Your task to perform on an android device: Search for "usb-b" on ebay.com, select the first entry, add it to the cart, then select checkout. Image 0: 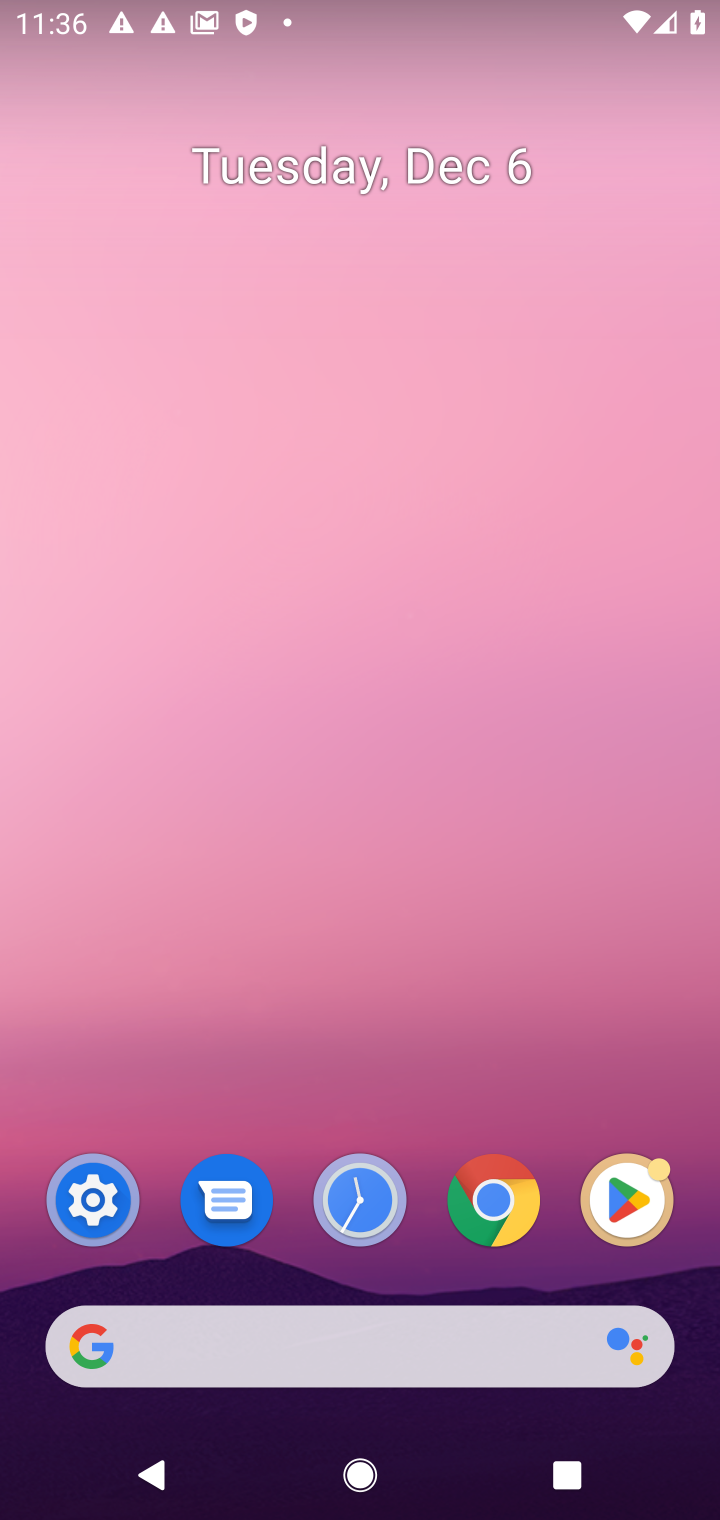
Step 0: click (417, 1361)
Your task to perform on an android device: Search for "usb-b" on ebay.com, select the first entry, add it to the cart, then select checkout. Image 1: 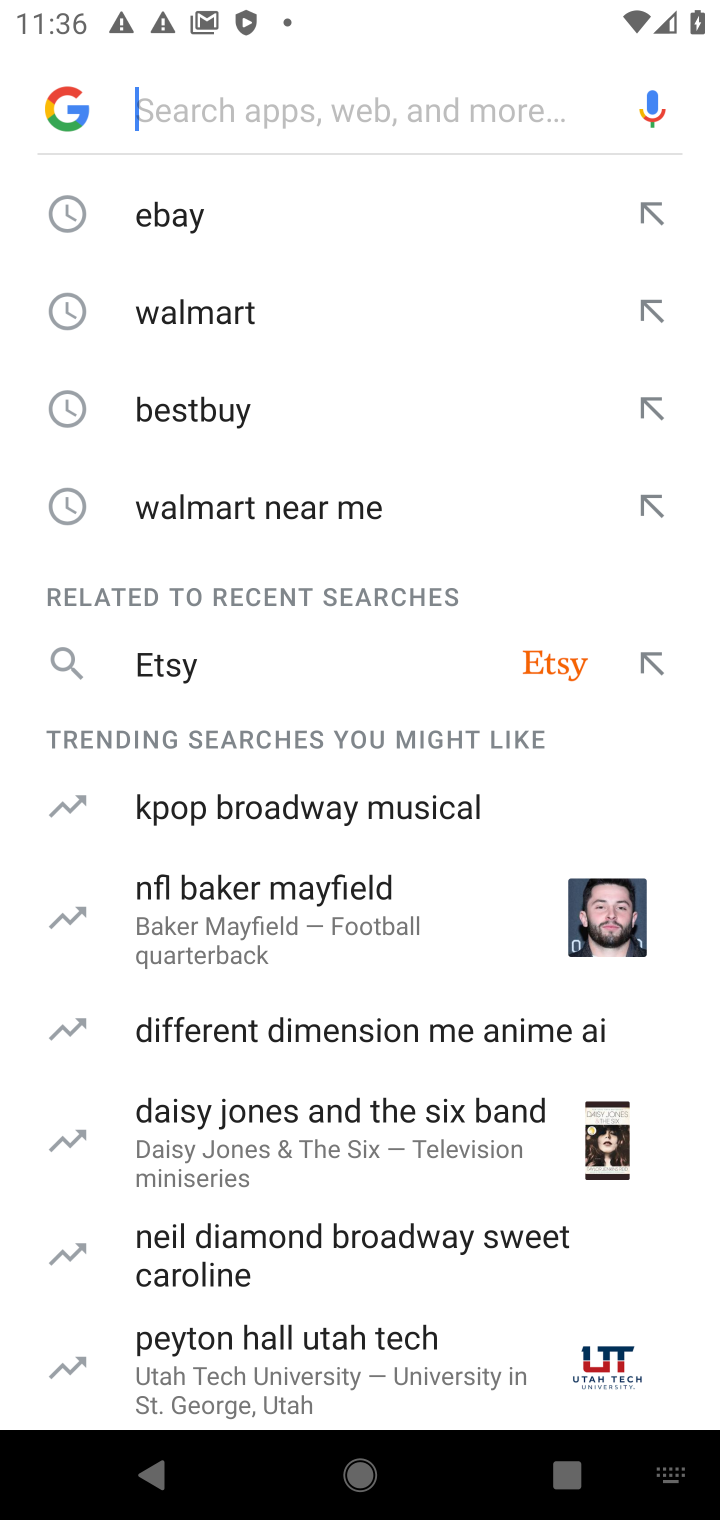
Step 1: type "ebay.com"
Your task to perform on an android device: Search for "usb-b" on ebay.com, select the first entry, add it to the cart, then select checkout. Image 2: 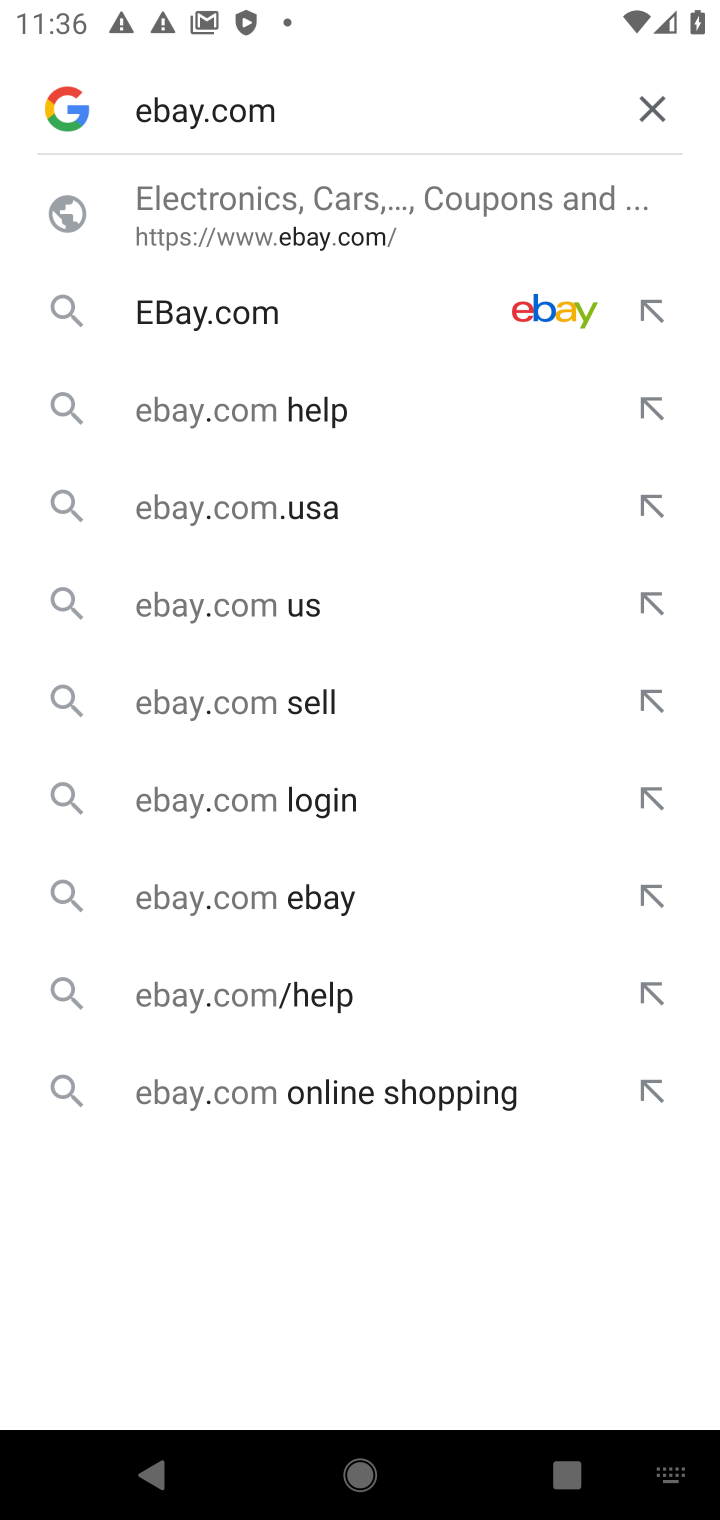
Step 2: click (256, 200)
Your task to perform on an android device: Search for "usb-b" on ebay.com, select the first entry, add it to the cart, then select checkout. Image 3: 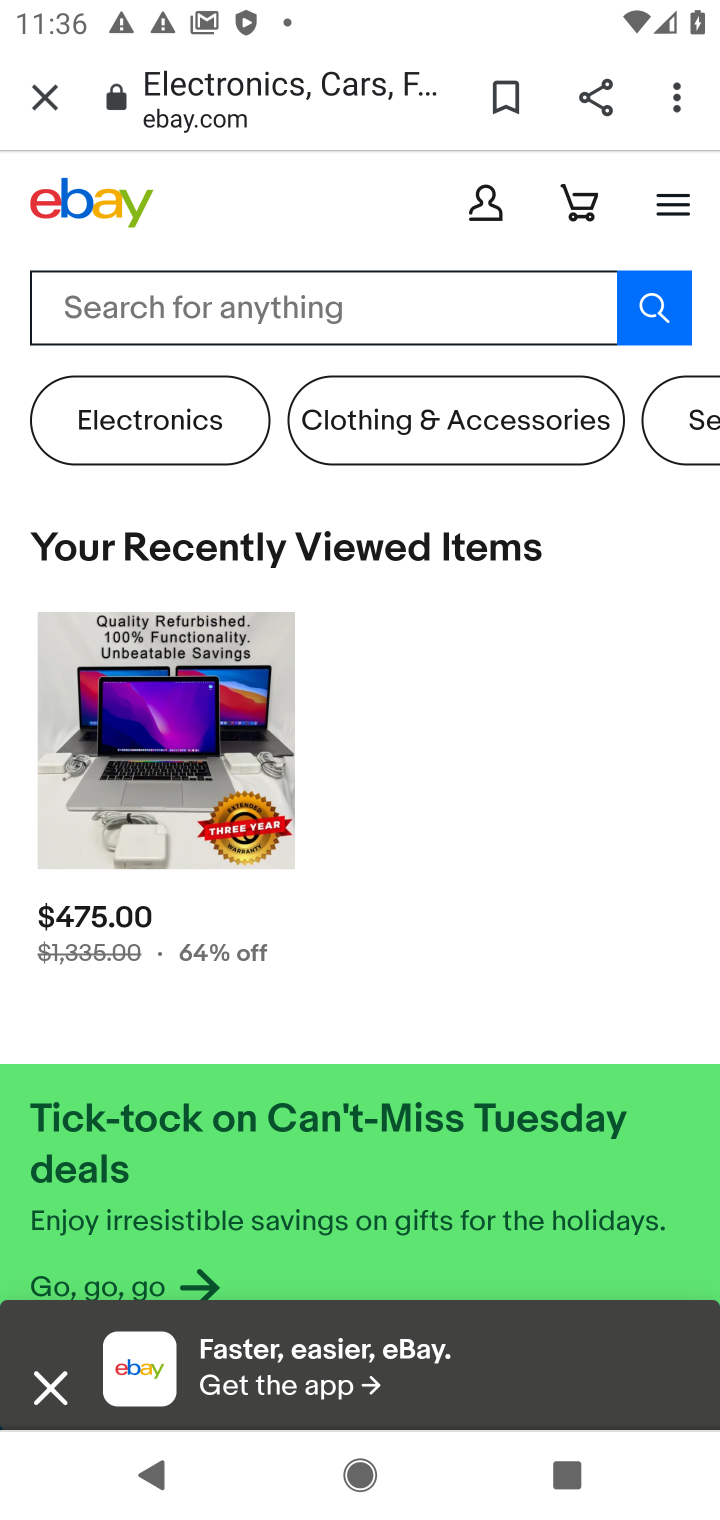
Step 3: click (280, 311)
Your task to perform on an android device: Search for "usb-b" on ebay.com, select the first entry, add it to the cart, then select checkout. Image 4: 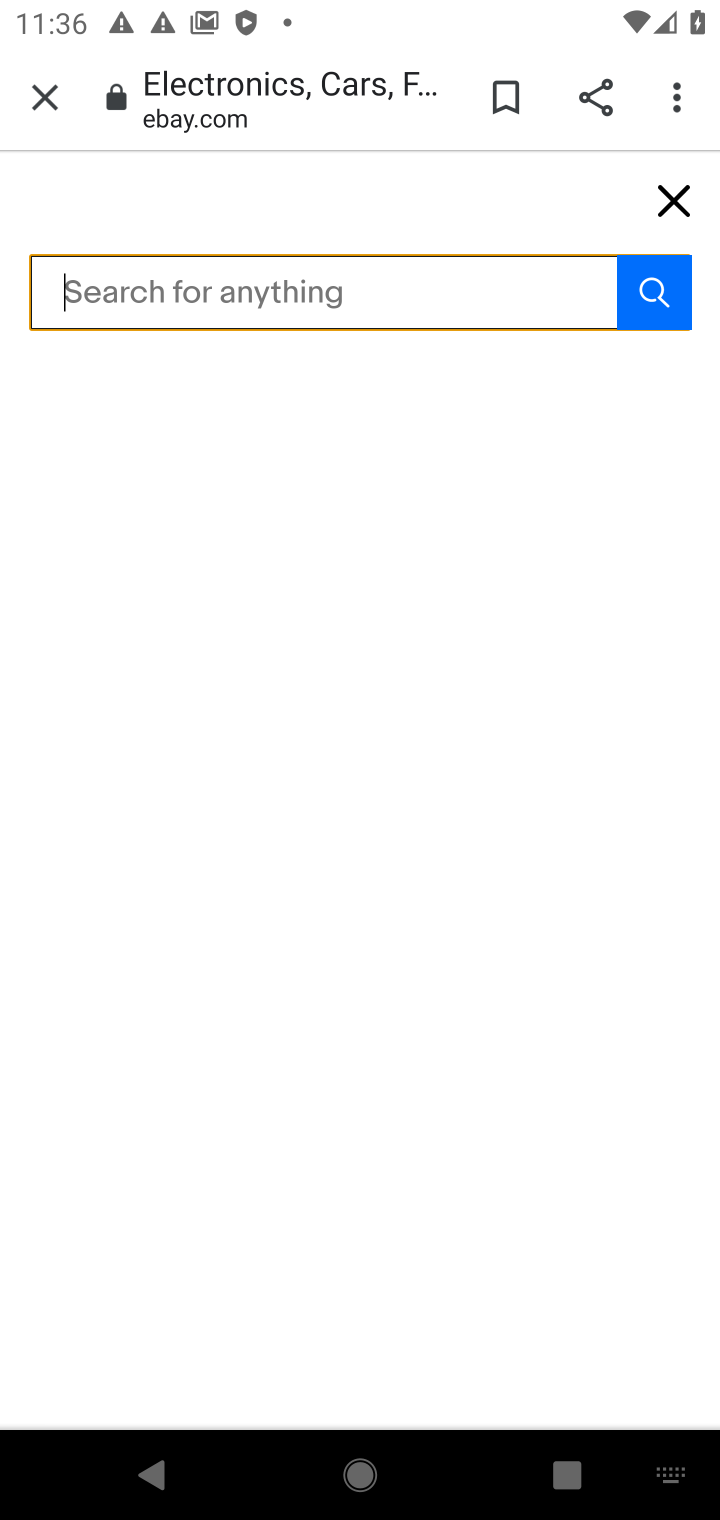
Step 4: type "usb-b"
Your task to perform on an android device: Search for "usb-b" on ebay.com, select the first entry, add it to the cart, then select checkout. Image 5: 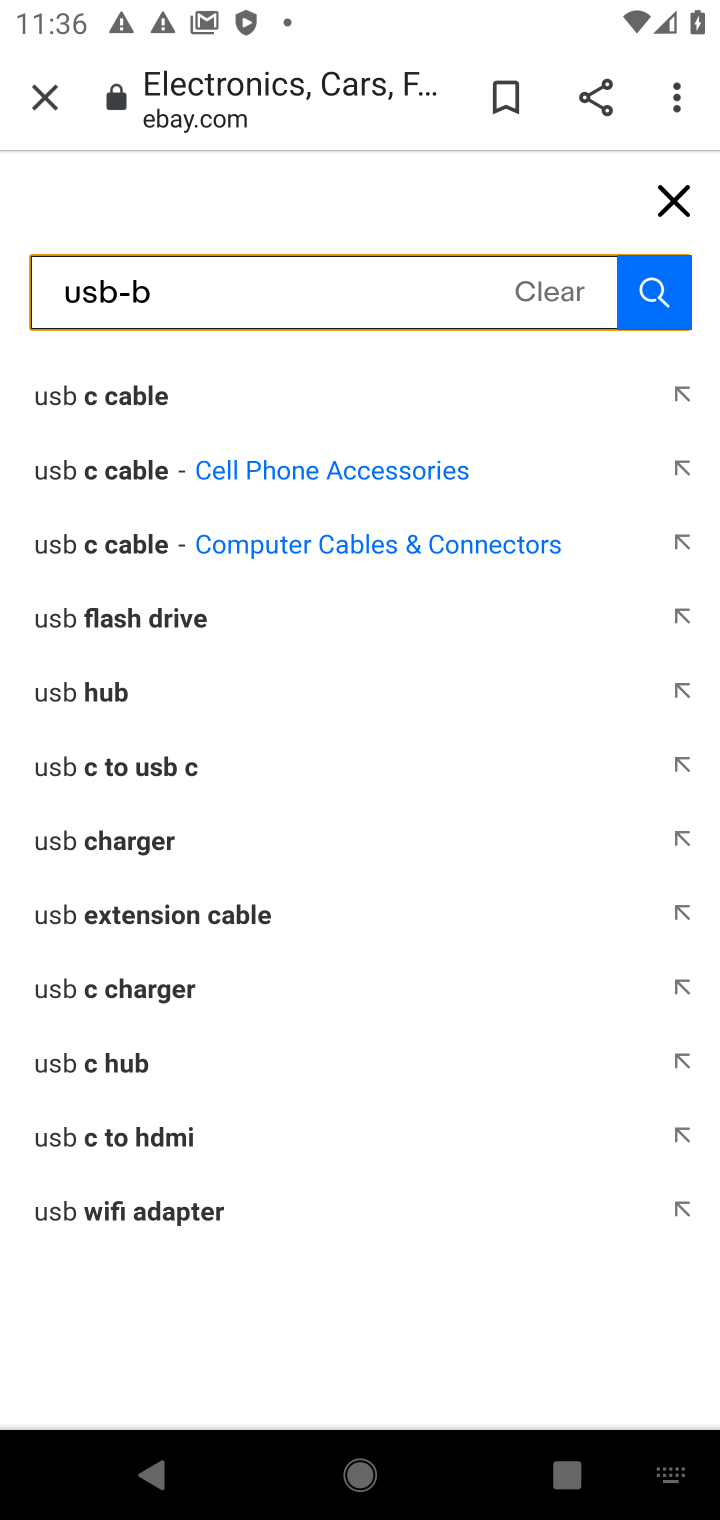
Step 5: click (658, 285)
Your task to perform on an android device: Search for "usb-b" on ebay.com, select the first entry, add it to the cart, then select checkout. Image 6: 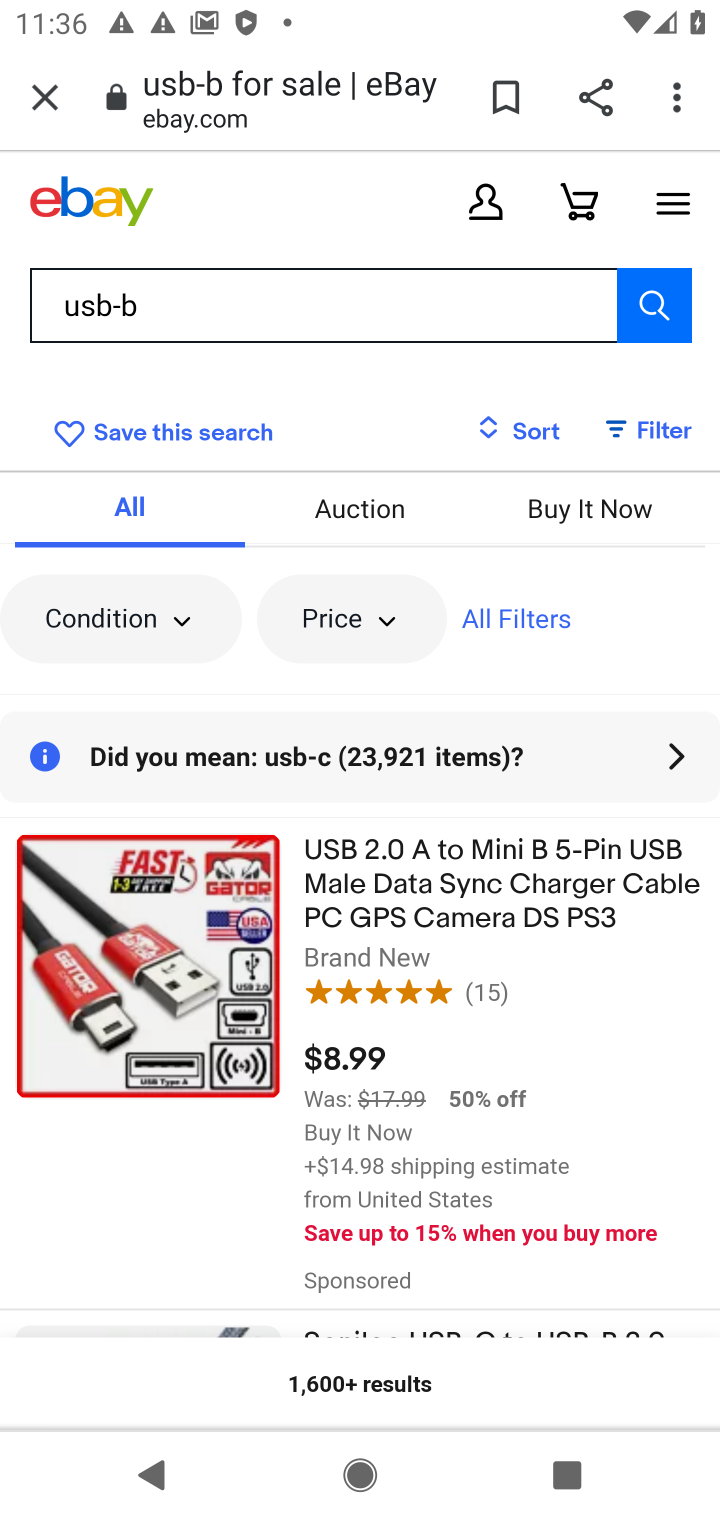
Step 6: click (373, 925)
Your task to perform on an android device: Search for "usb-b" on ebay.com, select the first entry, add it to the cart, then select checkout. Image 7: 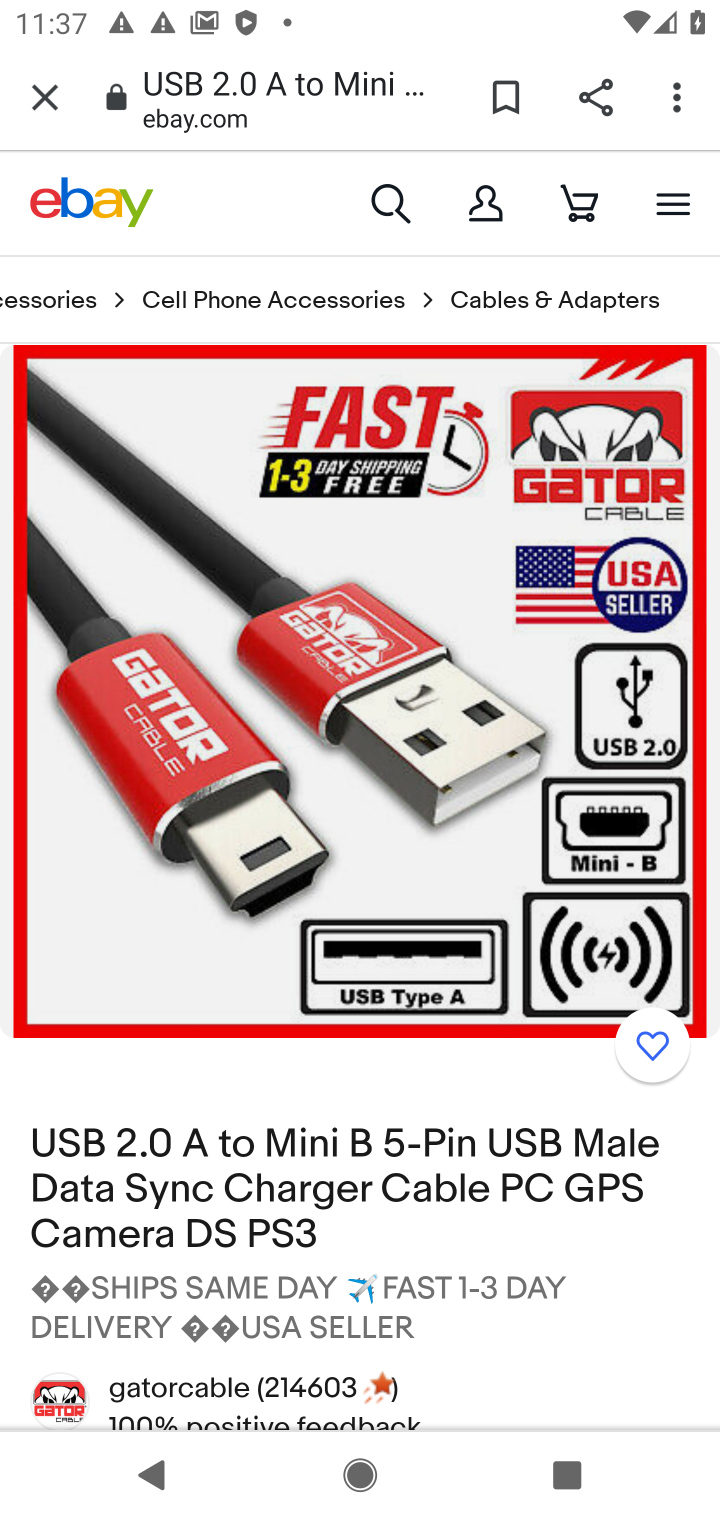
Step 7: drag from (558, 1267) to (539, 332)
Your task to perform on an android device: Search for "usb-b" on ebay.com, select the first entry, add it to the cart, then select checkout. Image 8: 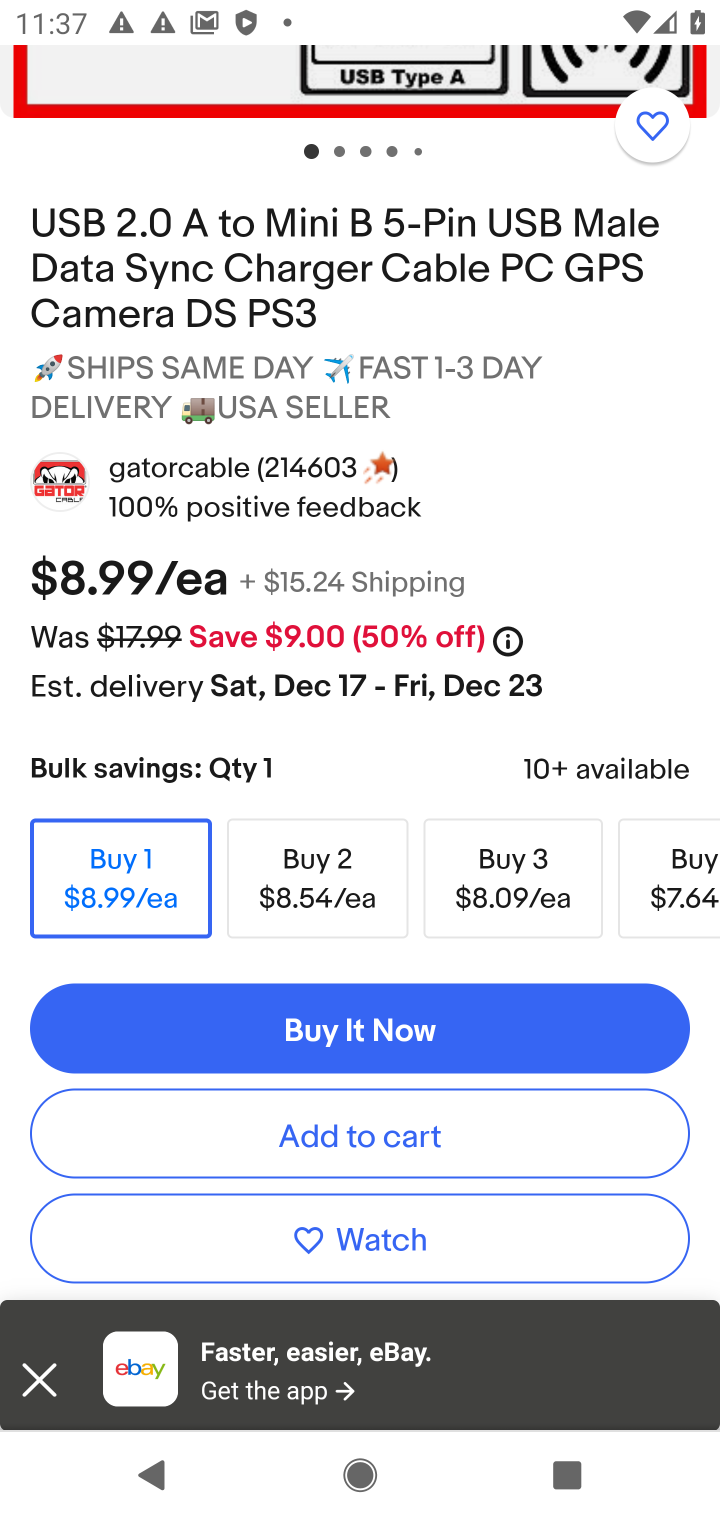
Step 8: click (515, 1102)
Your task to perform on an android device: Search for "usb-b" on ebay.com, select the first entry, add it to the cart, then select checkout. Image 9: 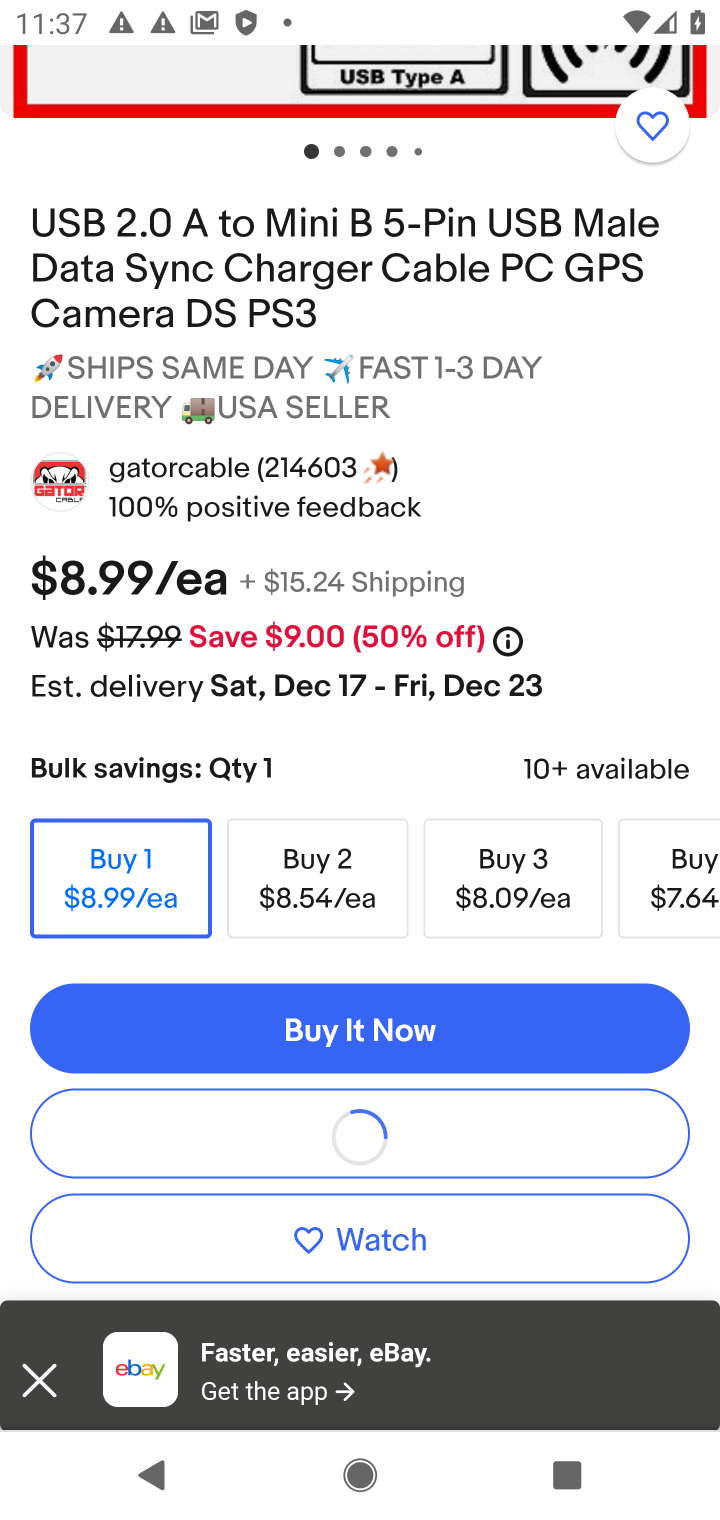
Step 9: task complete